Your task to perform on an android device: toggle location history Image 0: 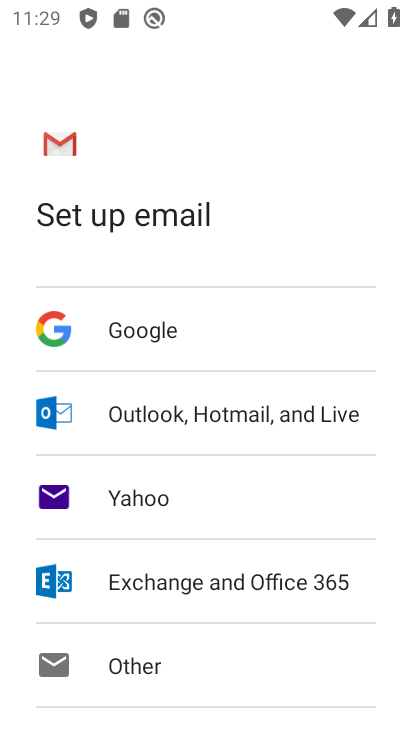
Step 0: press home button
Your task to perform on an android device: toggle location history Image 1: 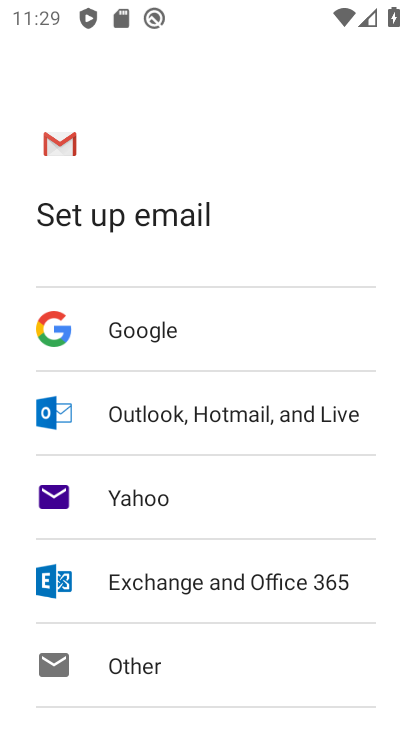
Step 1: press home button
Your task to perform on an android device: toggle location history Image 2: 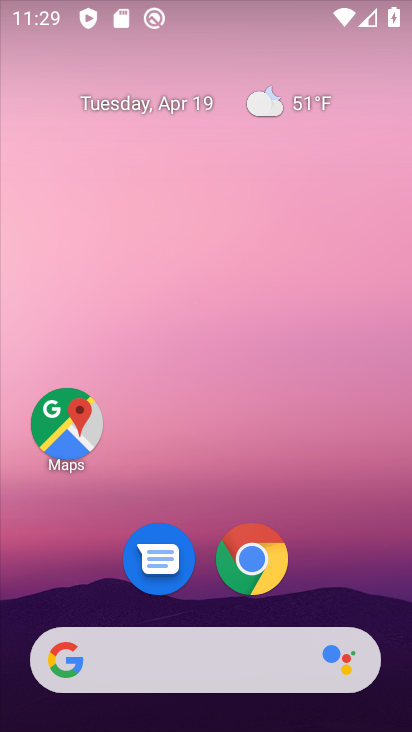
Step 2: press home button
Your task to perform on an android device: toggle location history Image 3: 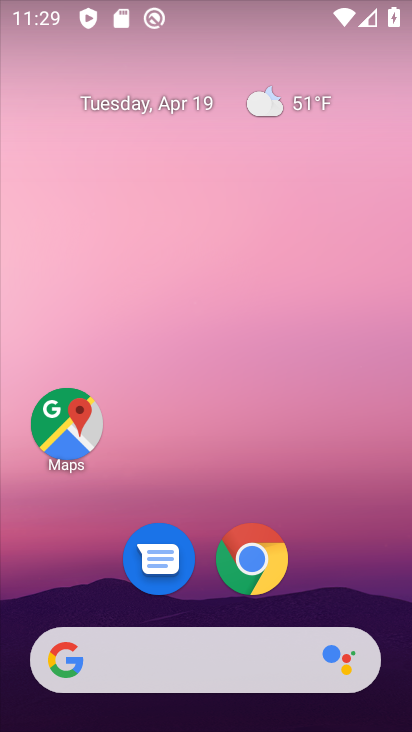
Step 3: drag from (266, 291) to (101, 8)
Your task to perform on an android device: toggle location history Image 4: 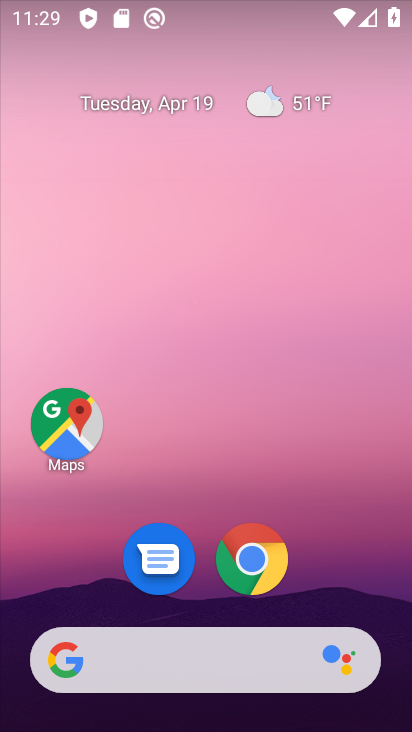
Step 4: click (76, 412)
Your task to perform on an android device: toggle location history Image 5: 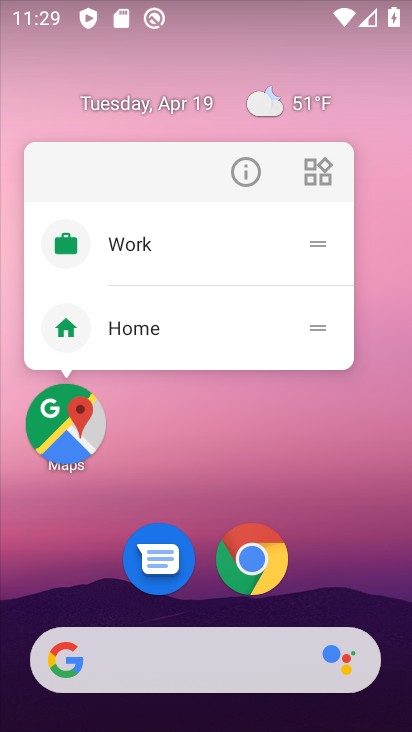
Step 5: click (69, 430)
Your task to perform on an android device: toggle location history Image 6: 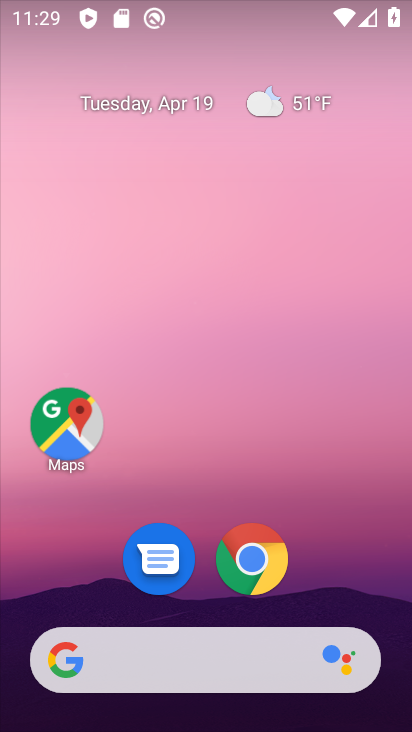
Step 6: click (69, 430)
Your task to perform on an android device: toggle location history Image 7: 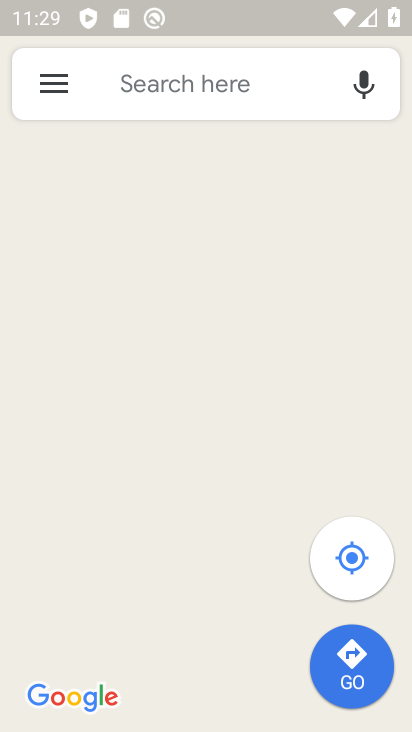
Step 7: click (49, 90)
Your task to perform on an android device: toggle location history Image 8: 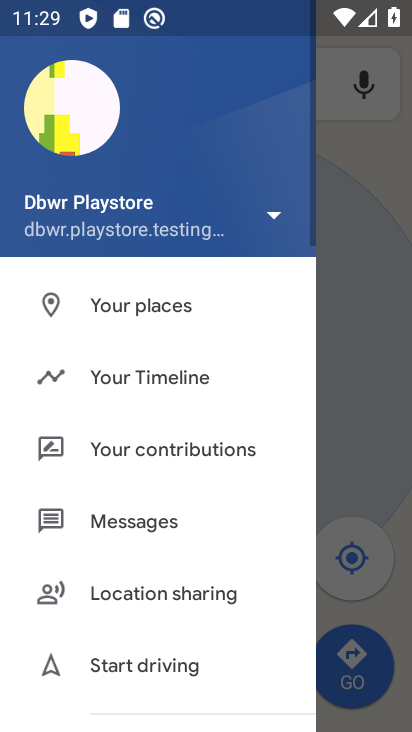
Step 8: click (55, 90)
Your task to perform on an android device: toggle location history Image 9: 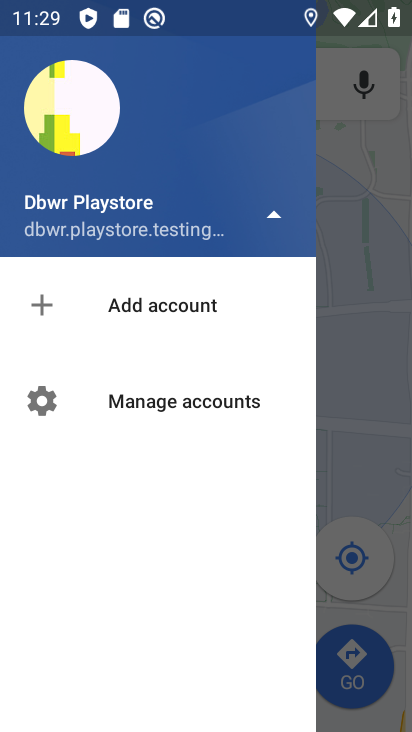
Step 9: click (267, 215)
Your task to perform on an android device: toggle location history Image 10: 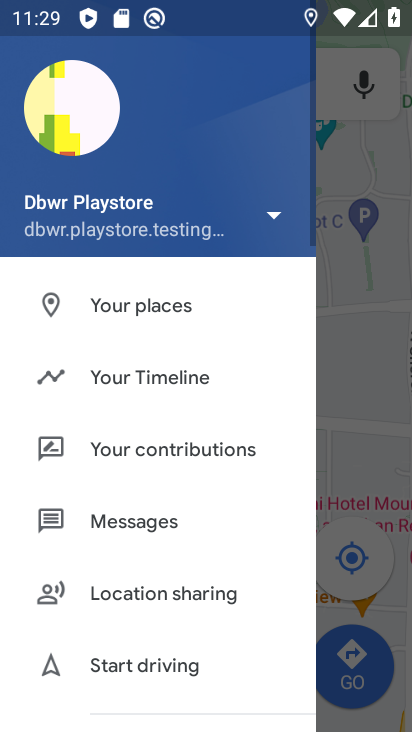
Step 10: click (267, 215)
Your task to perform on an android device: toggle location history Image 11: 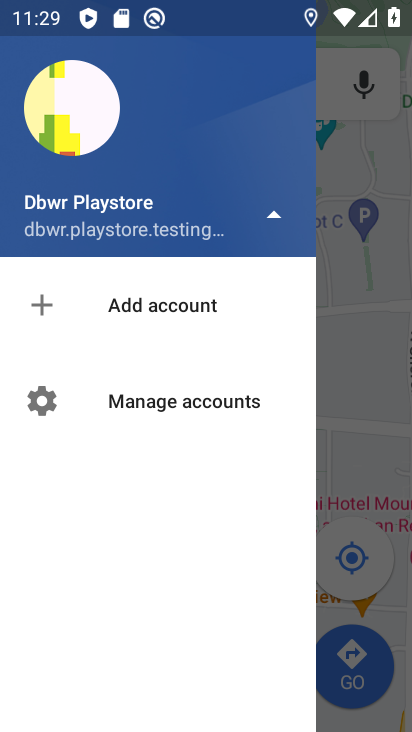
Step 11: click (146, 373)
Your task to perform on an android device: toggle location history Image 12: 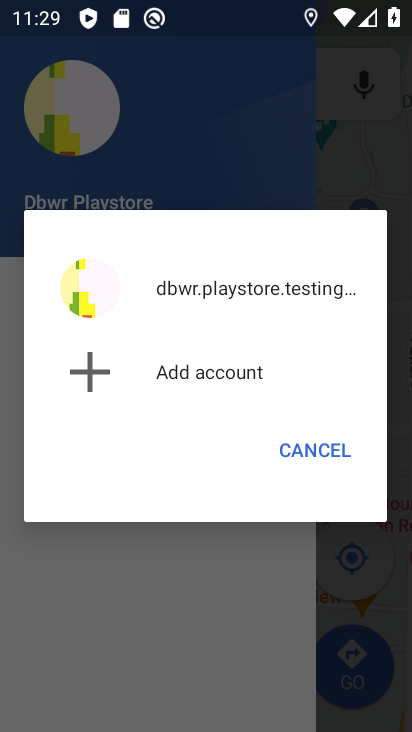
Step 12: click (303, 443)
Your task to perform on an android device: toggle location history Image 13: 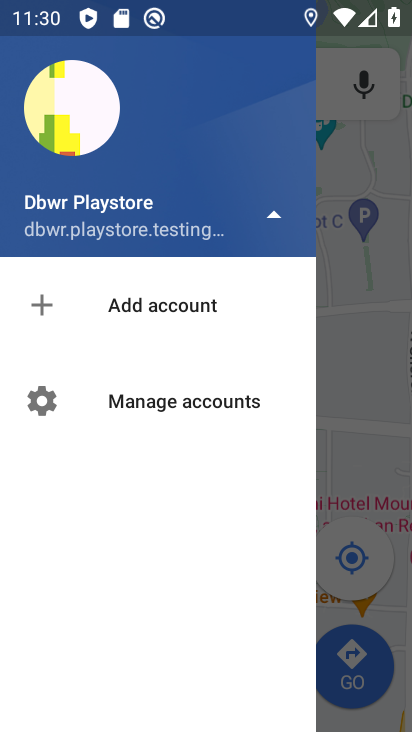
Step 13: click (276, 215)
Your task to perform on an android device: toggle location history Image 14: 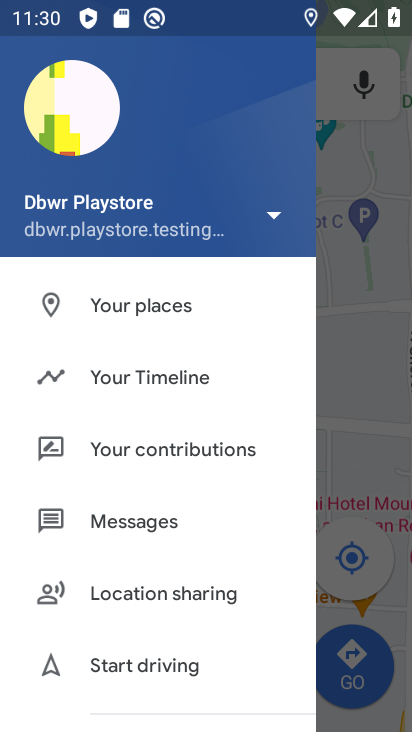
Step 14: click (155, 371)
Your task to perform on an android device: toggle location history Image 15: 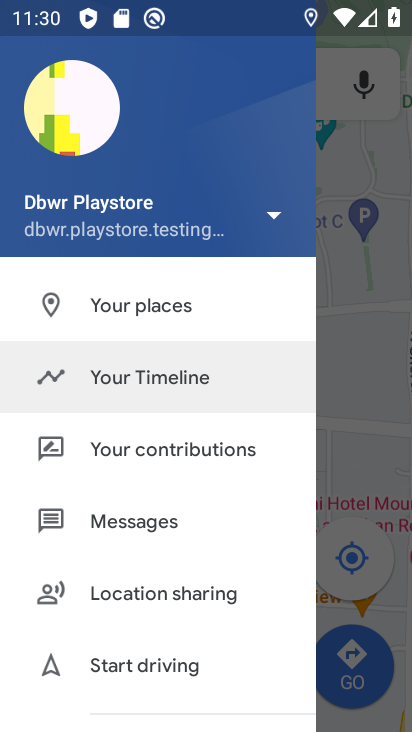
Step 15: click (156, 371)
Your task to perform on an android device: toggle location history Image 16: 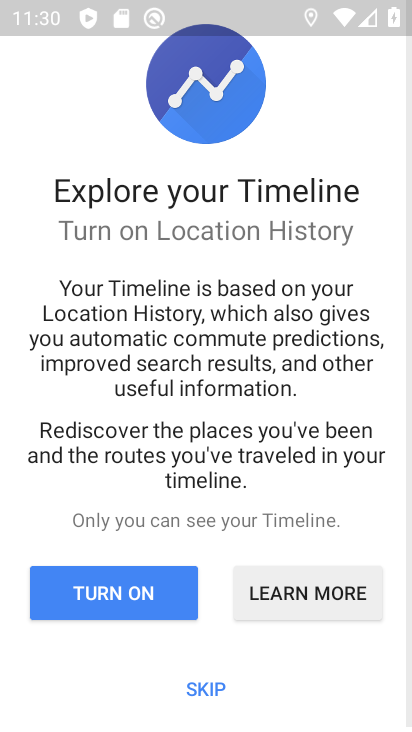
Step 16: click (146, 594)
Your task to perform on an android device: toggle location history Image 17: 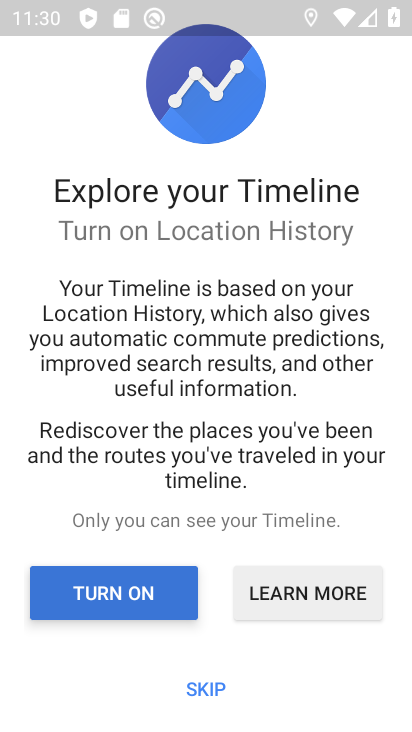
Step 17: click (146, 594)
Your task to perform on an android device: toggle location history Image 18: 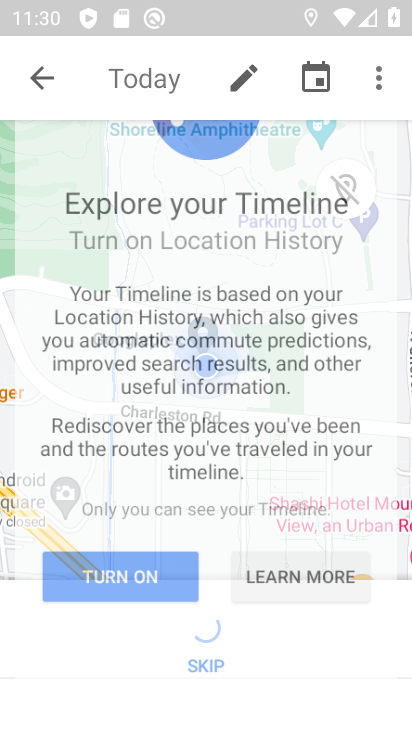
Step 18: click (142, 593)
Your task to perform on an android device: toggle location history Image 19: 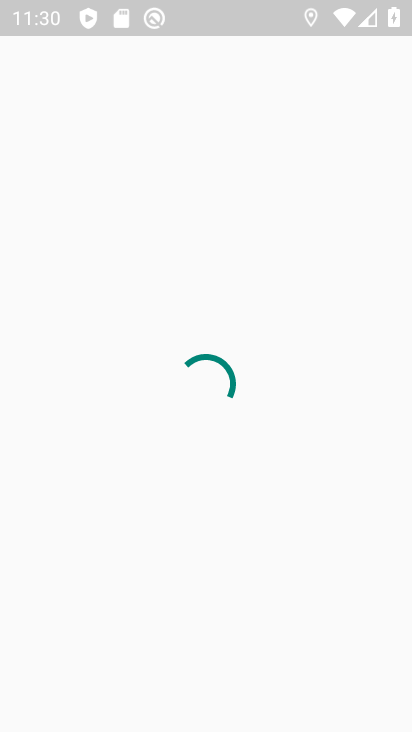
Step 19: click (374, 73)
Your task to perform on an android device: toggle location history Image 20: 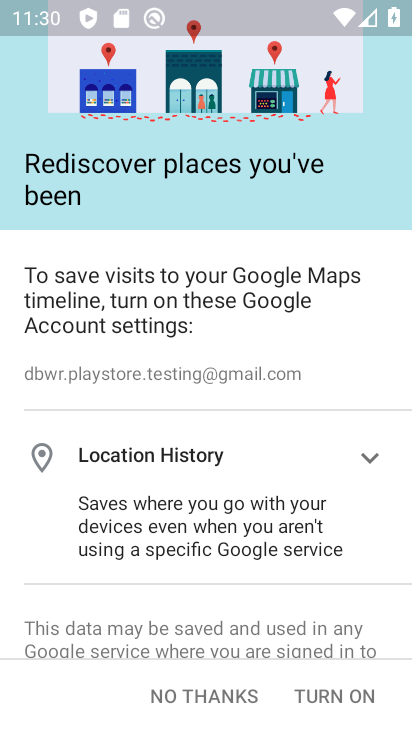
Step 20: click (321, 684)
Your task to perform on an android device: toggle location history Image 21: 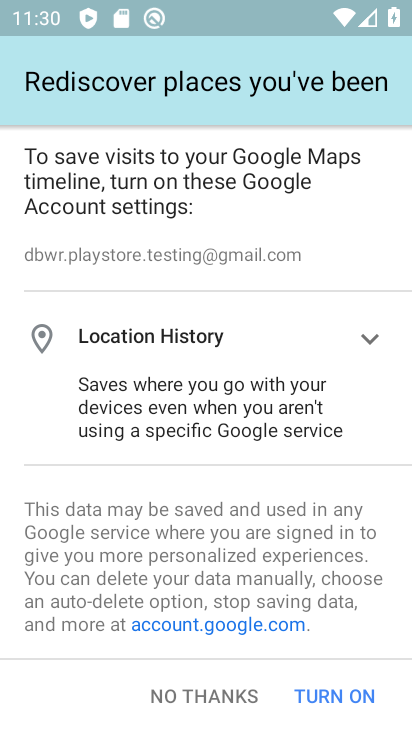
Step 21: click (332, 695)
Your task to perform on an android device: toggle location history Image 22: 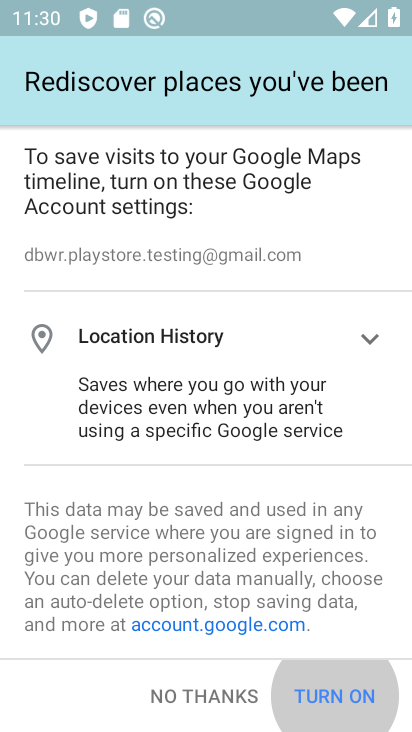
Step 22: click (332, 695)
Your task to perform on an android device: toggle location history Image 23: 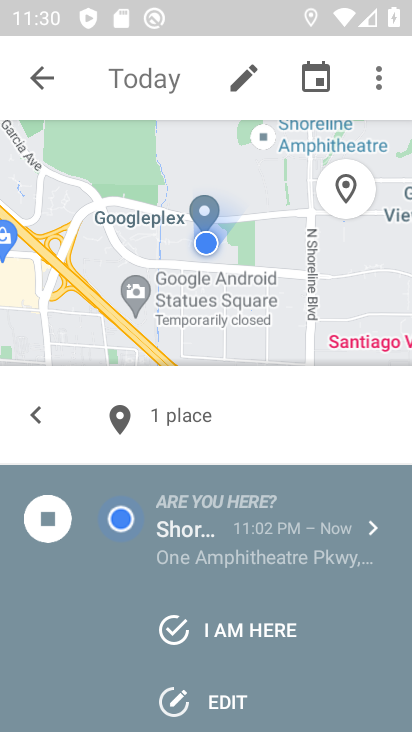
Step 23: task complete